Your task to perform on an android device: turn notification dots on Image 0: 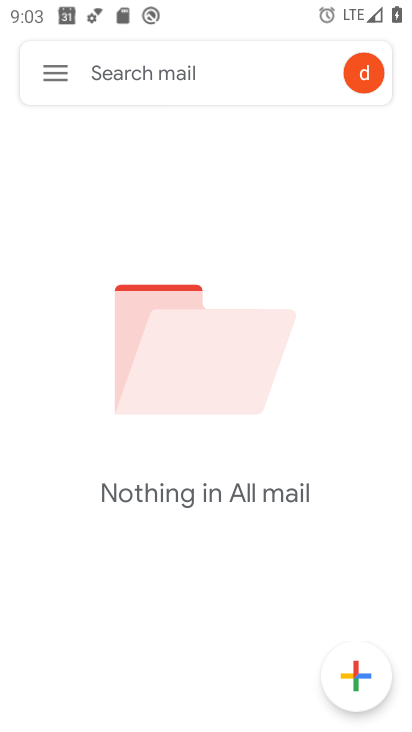
Step 0: press home button
Your task to perform on an android device: turn notification dots on Image 1: 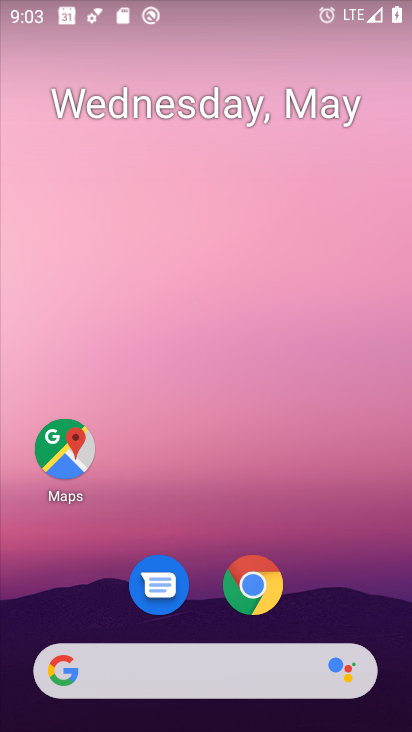
Step 1: drag from (247, 453) to (266, 47)
Your task to perform on an android device: turn notification dots on Image 2: 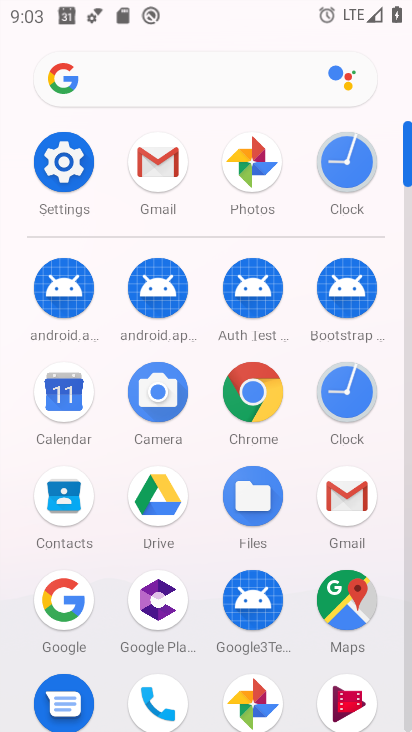
Step 2: click (74, 154)
Your task to perform on an android device: turn notification dots on Image 3: 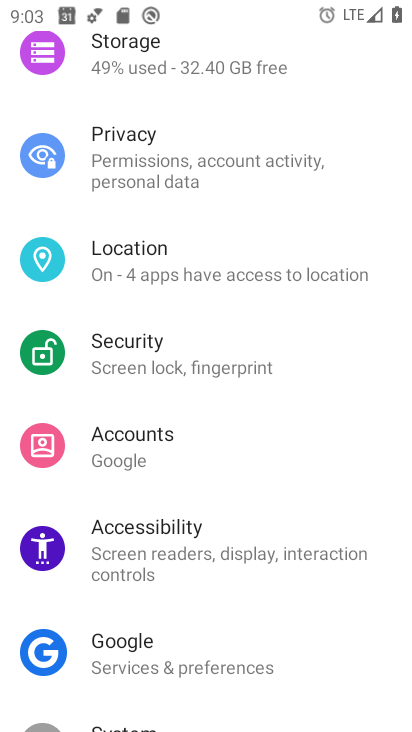
Step 3: drag from (231, 120) to (244, 674)
Your task to perform on an android device: turn notification dots on Image 4: 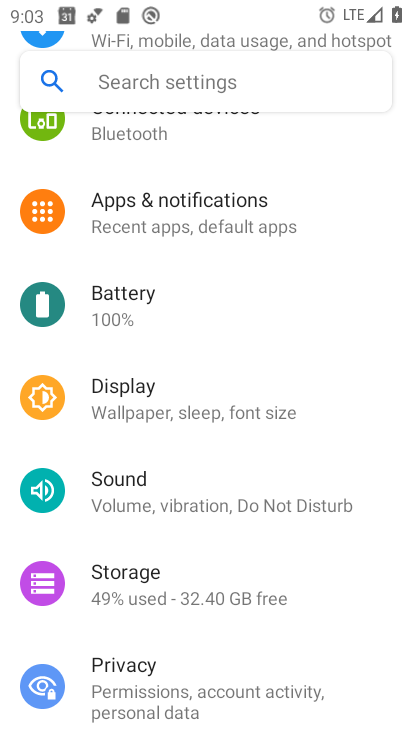
Step 4: click (193, 203)
Your task to perform on an android device: turn notification dots on Image 5: 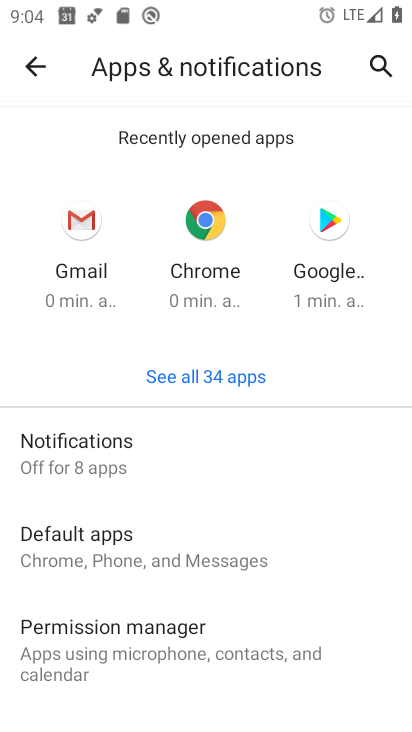
Step 5: click (126, 437)
Your task to perform on an android device: turn notification dots on Image 6: 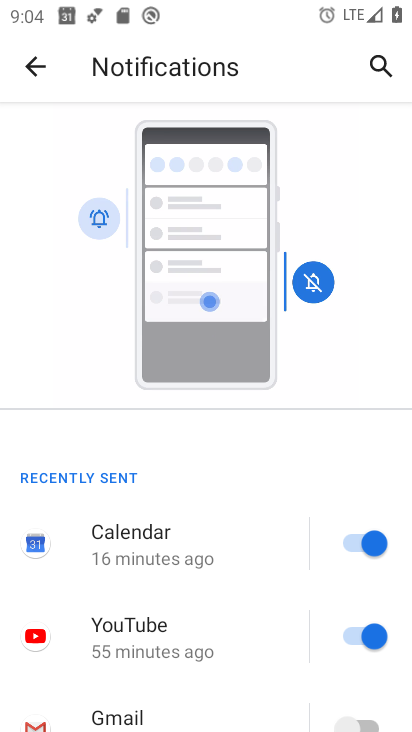
Step 6: drag from (260, 616) to (244, 169)
Your task to perform on an android device: turn notification dots on Image 7: 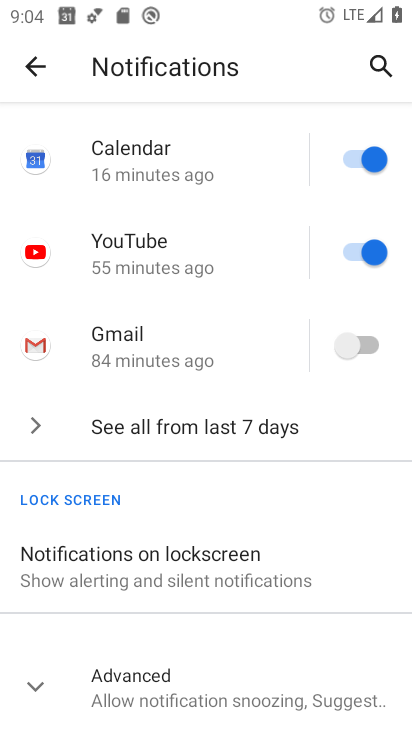
Step 7: click (41, 679)
Your task to perform on an android device: turn notification dots on Image 8: 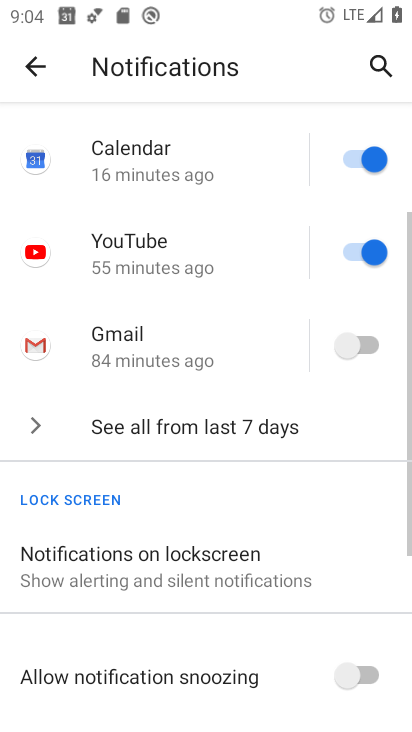
Step 8: drag from (228, 523) to (210, 66)
Your task to perform on an android device: turn notification dots on Image 9: 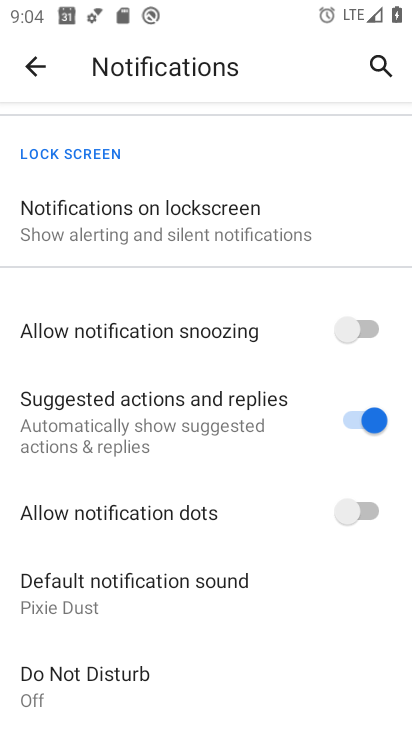
Step 9: click (361, 498)
Your task to perform on an android device: turn notification dots on Image 10: 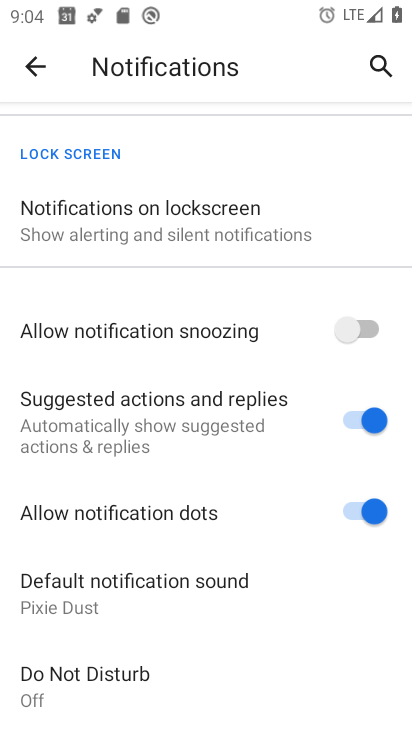
Step 10: task complete